Your task to perform on an android device: Open Google Chrome and click the shortcut for Amazon.com Image 0: 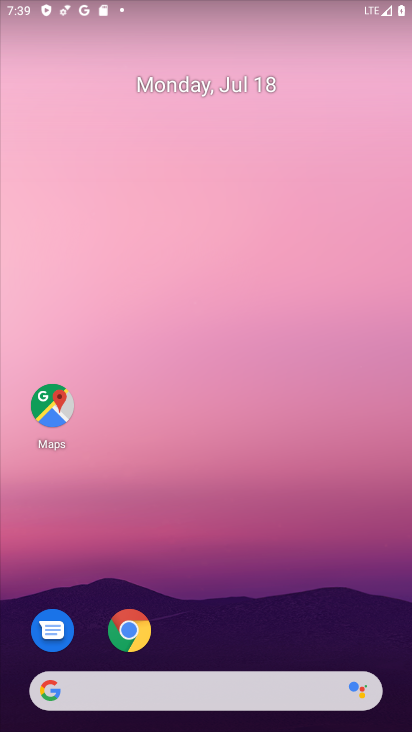
Step 0: drag from (214, 687) to (239, 132)
Your task to perform on an android device: Open Google Chrome and click the shortcut for Amazon.com Image 1: 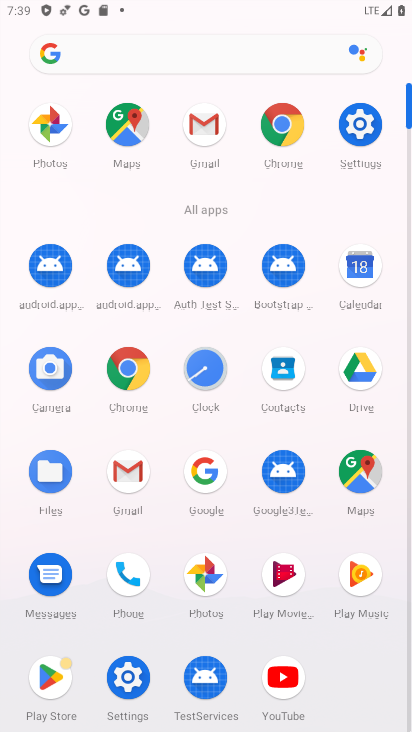
Step 1: click (277, 151)
Your task to perform on an android device: Open Google Chrome and click the shortcut for Amazon.com Image 2: 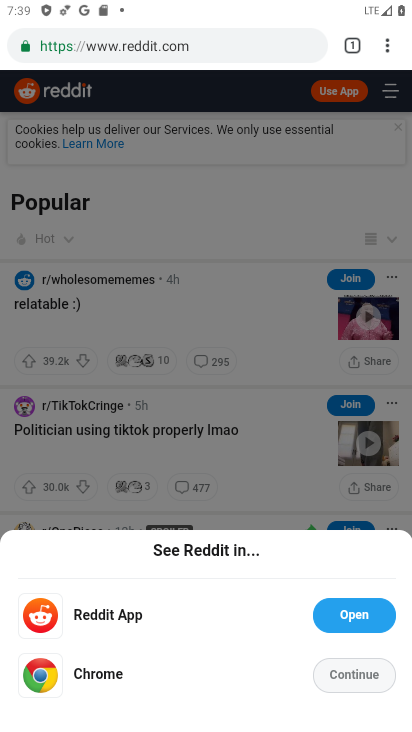
Step 2: drag from (349, 49) to (321, 311)
Your task to perform on an android device: Open Google Chrome and click the shortcut for Amazon.com Image 3: 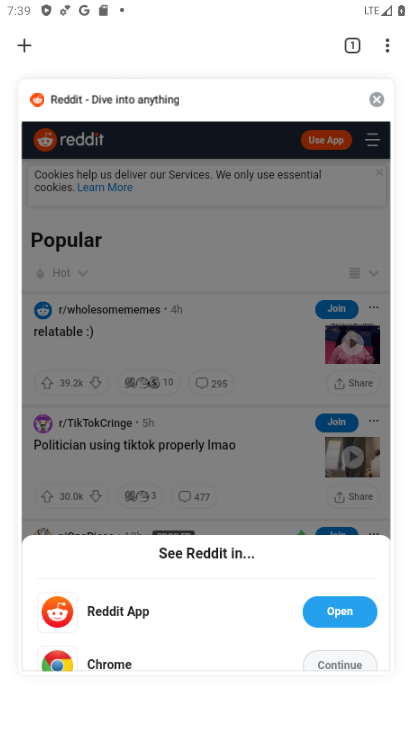
Step 3: click (23, 42)
Your task to perform on an android device: Open Google Chrome and click the shortcut for Amazon.com Image 4: 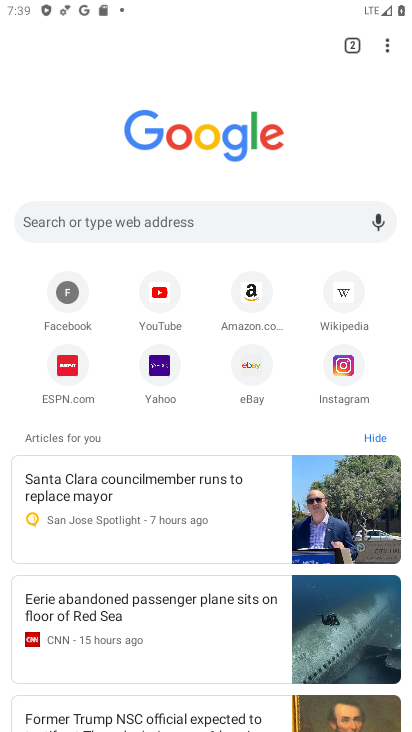
Step 4: click (256, 317)
Your task to perform on an android device: Open Google Chrome and click the shortcut for Amazon.com Image 5: 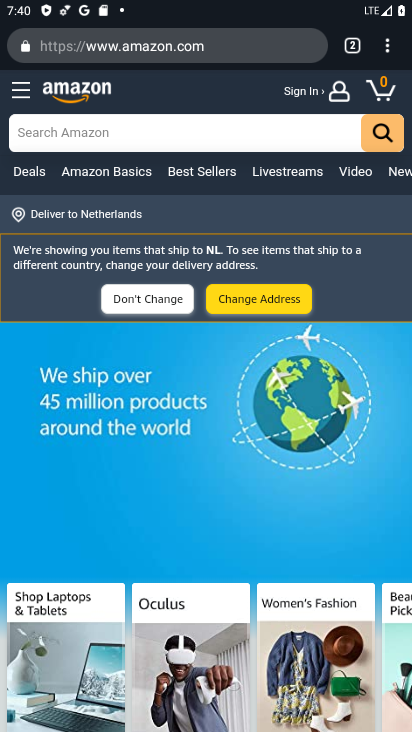
Step 5: task complete